Your task to perform on an android device: View the shopping cart on ebay. Add "bose soundsport free" to the cart on ebay, then select checkout. Image 0: 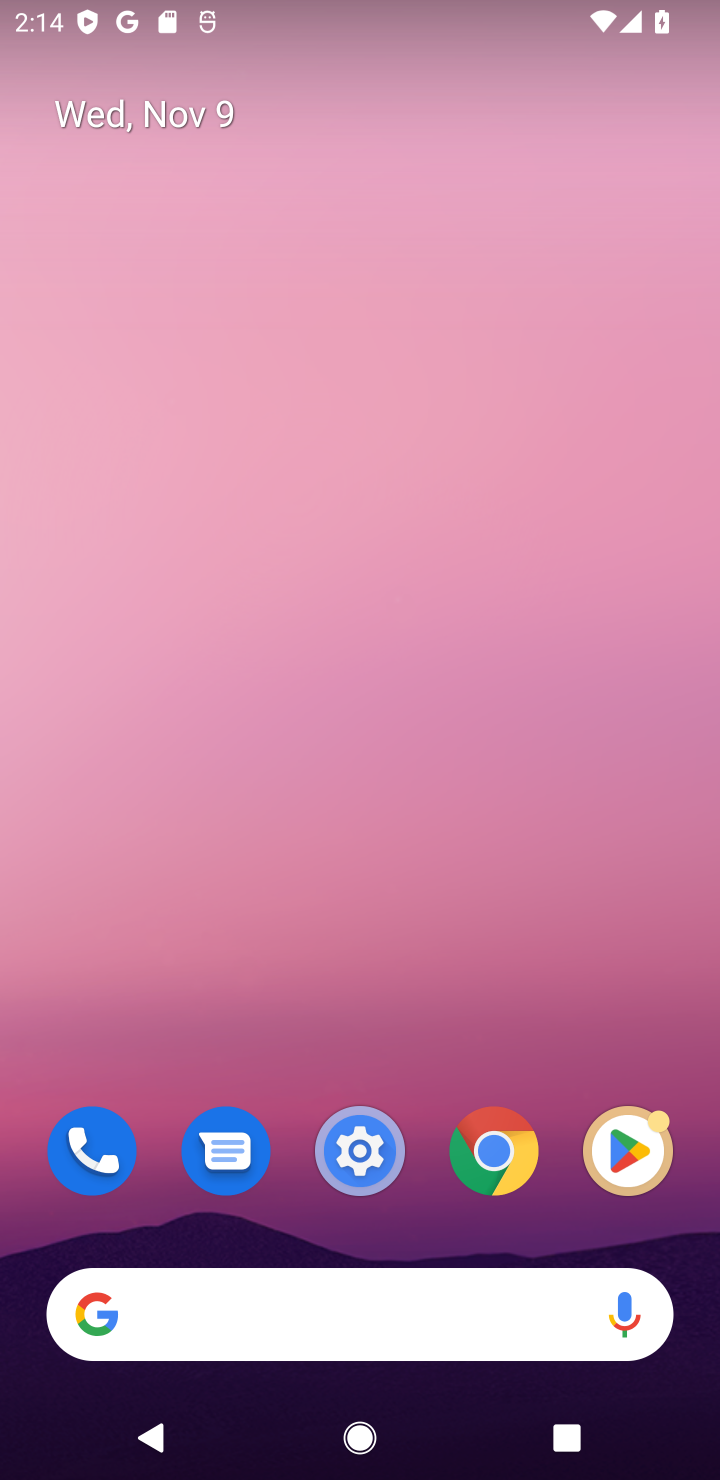
Step 0: click (435, 1296)
Your task to perform on an android device: View the shopping cart on ebay. Add "bose soundsport free" to the cart on ebay, then select checkout. Image 1: 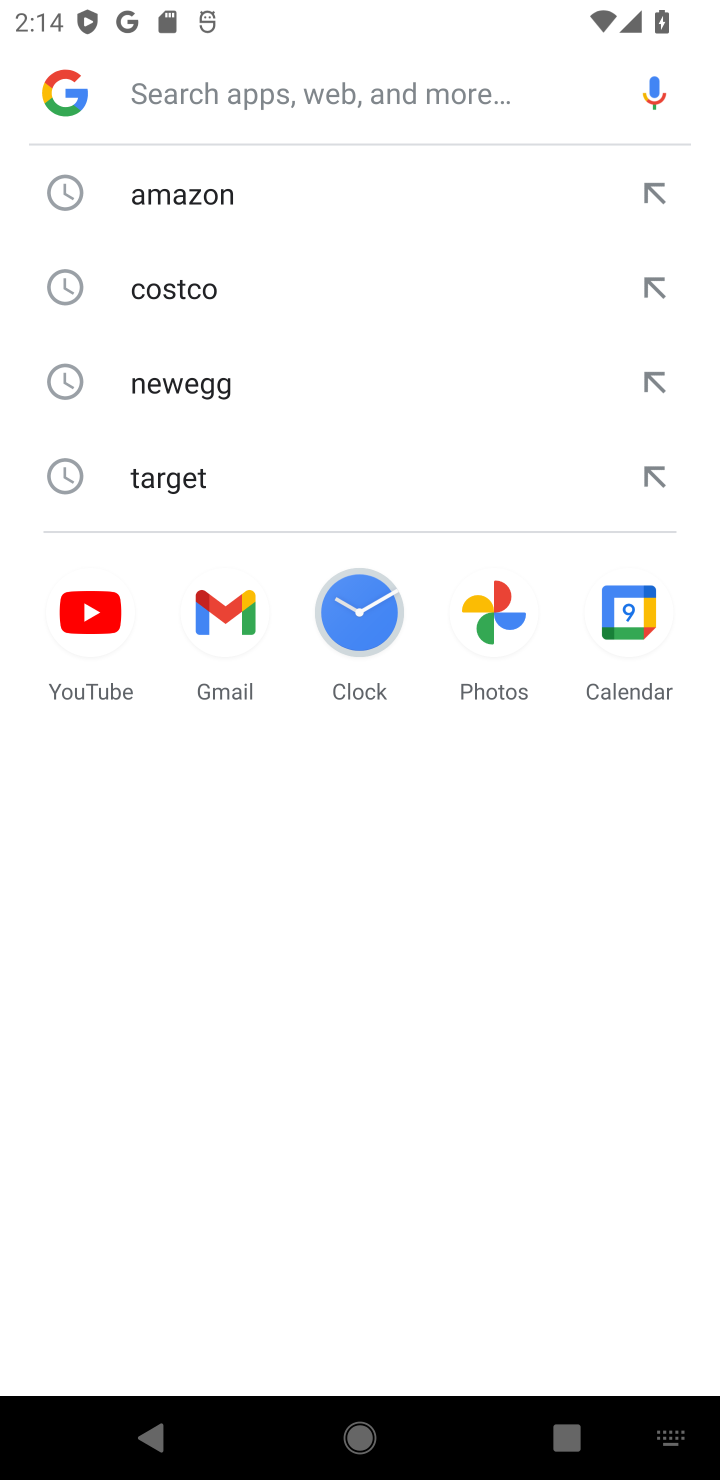
Step 1: type "ebay"
Your task to perform on an android device: View the shopping cart on ebay. Add "bose soundsport free" to the cart on ebay, then select checkout. Image 2: 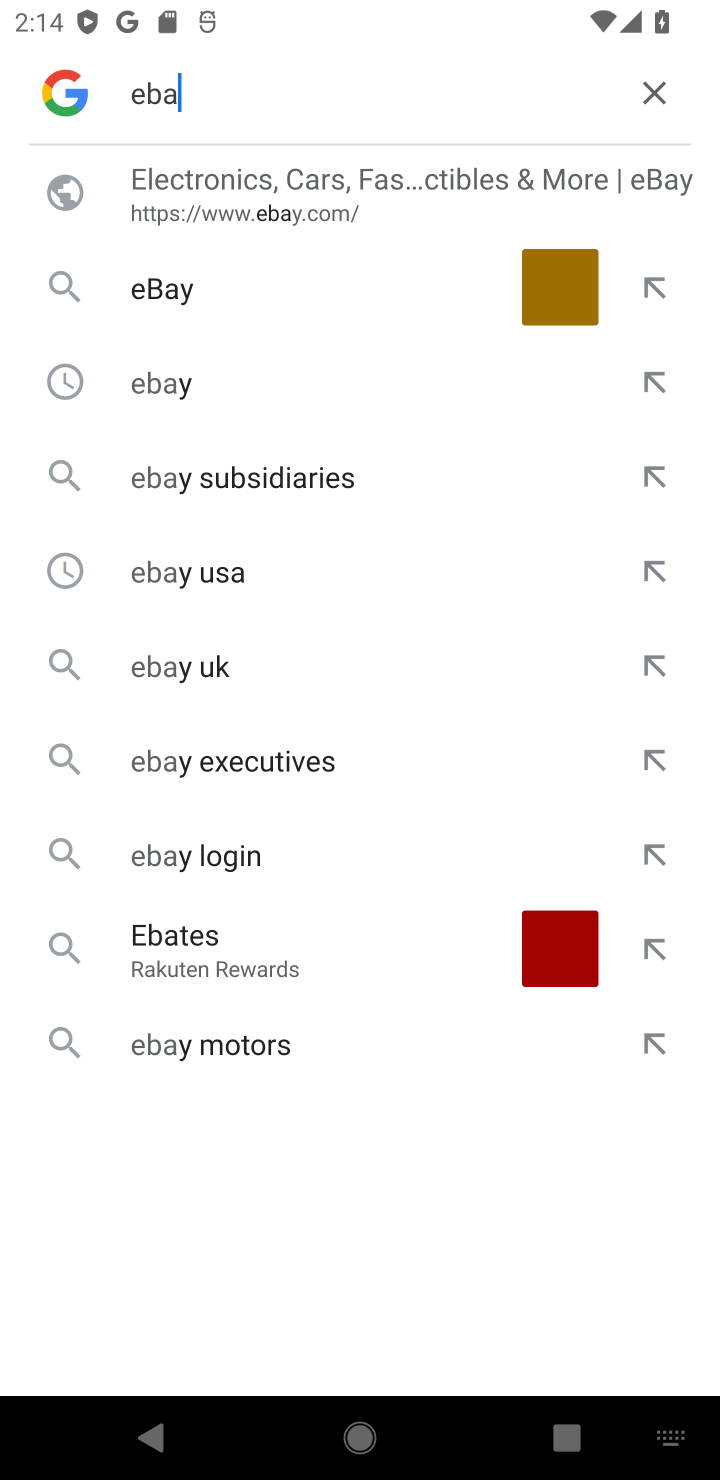
Step 2: type ""
Your task to perform on an android device: View the shopping cart on ebay. Add "bose soundsport free" to the cart on ebay, then select checkout. Image 3: 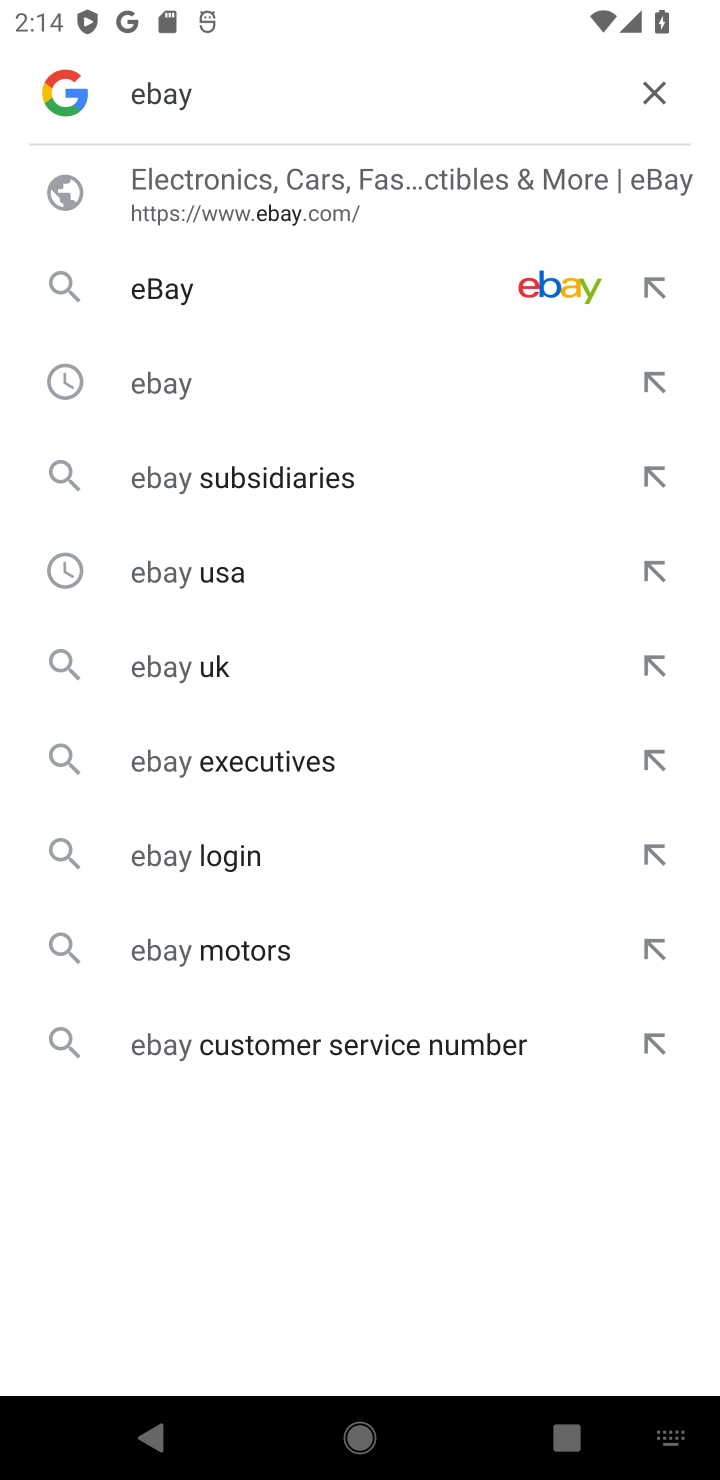
Step 3: press enter
Your task to perform on an android device: View the shopping cart on ebay. Add "bose soundsport free" to the cart on ebay, then select checkout. Image 4: 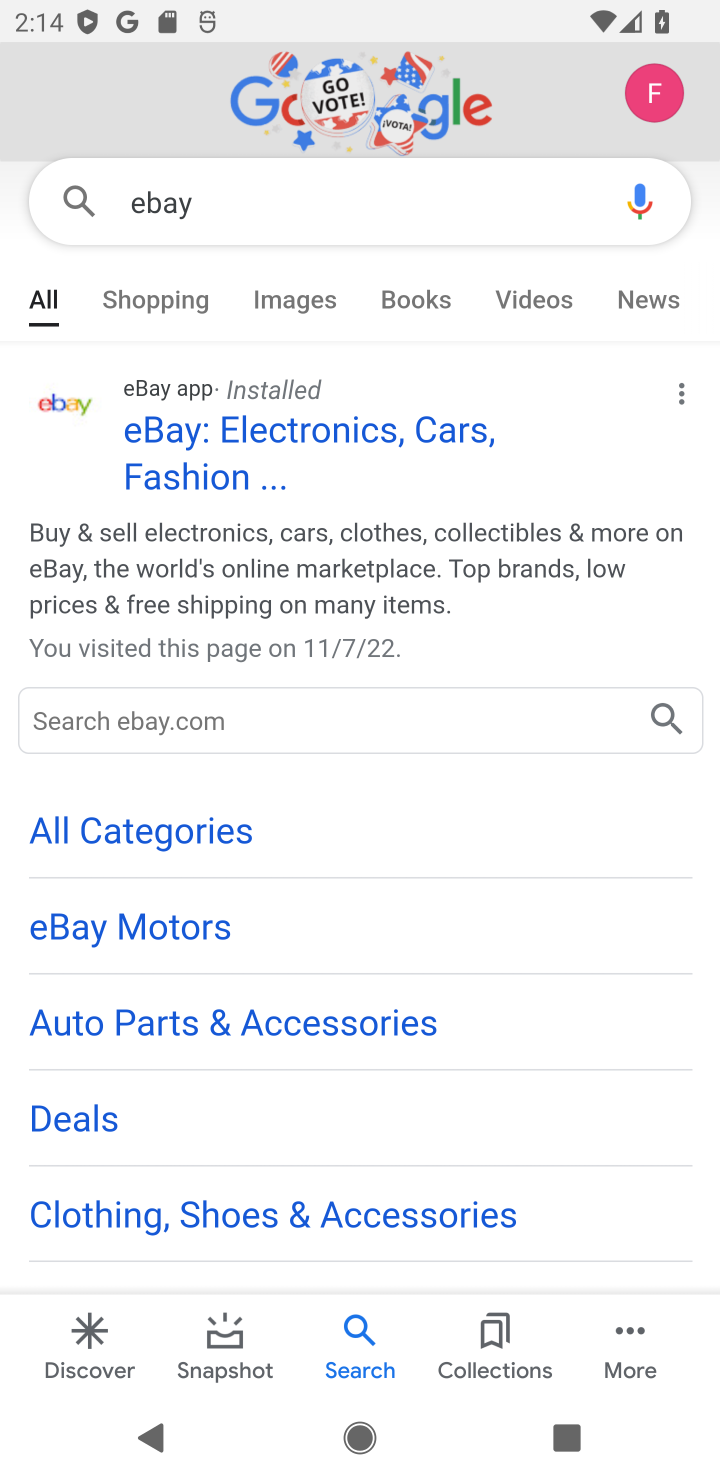
Step 4: drag from (357, 832) to (349, 1318)
Your task to perform on an android device: View the shopping cart on ebay. Add "bose soundsport free" to the cart on ebay, then select checkout. Image 5: 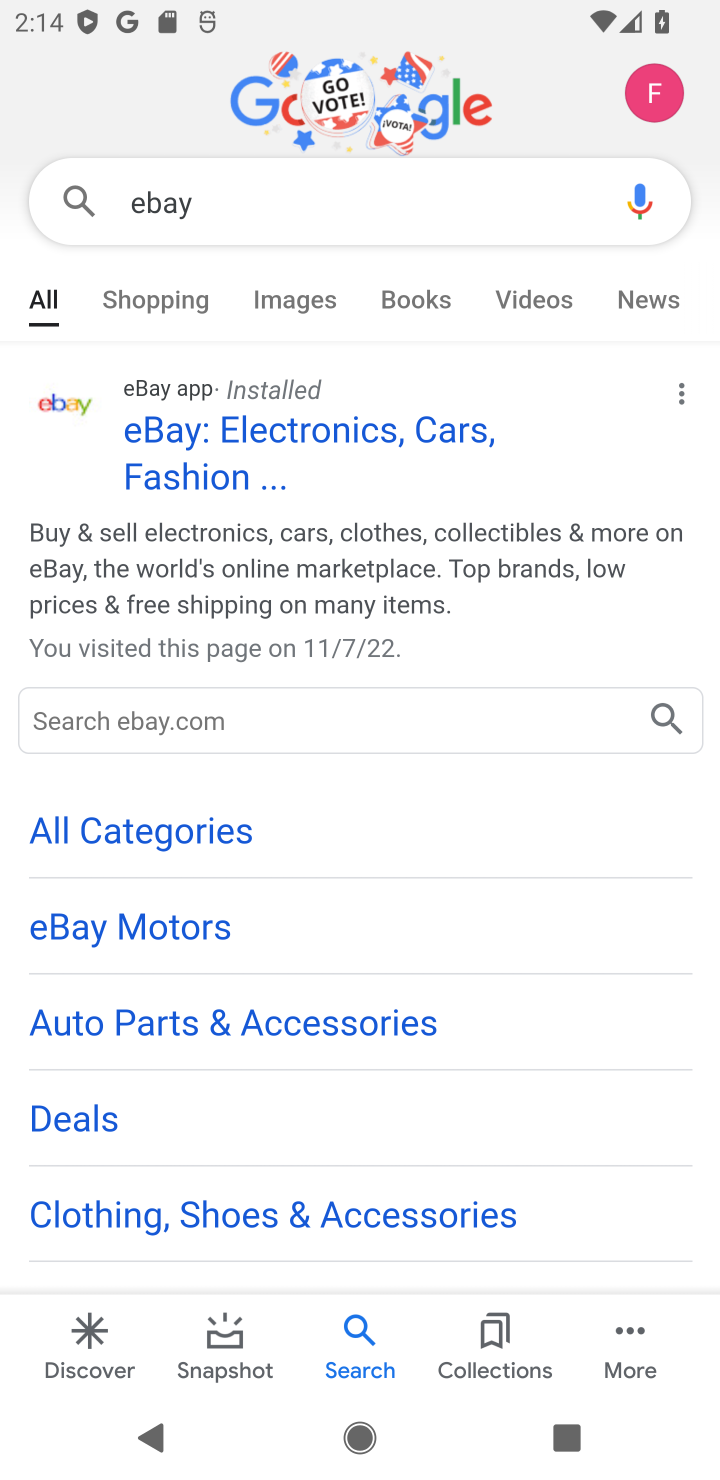
Step 5: click (188, 429)
Your task to perform on an android device: View the shopping cart on ebay. Add "bose soundsport free" to the cart on ebay, then select checkout. Image 6: 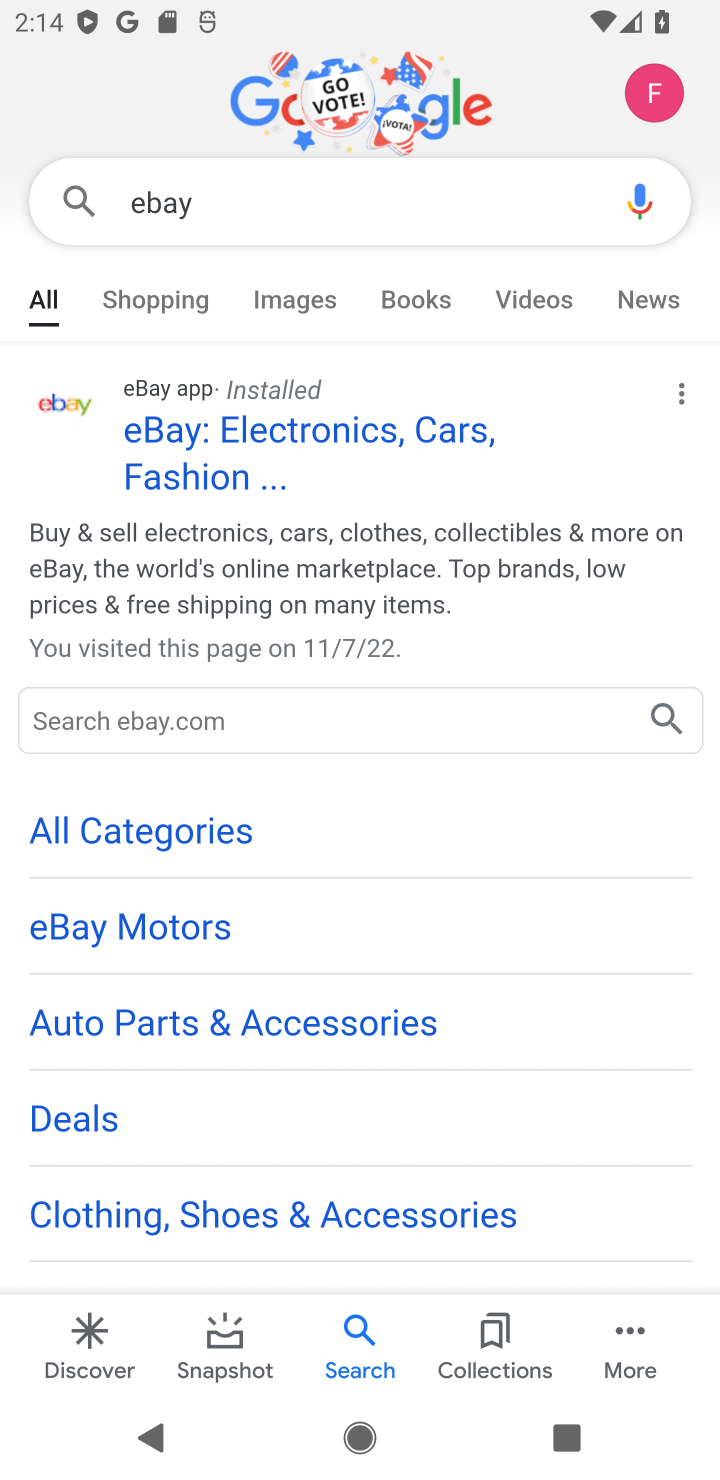
Step 6: drag from (396, 904) to (417, 250)
Your task to perform on an android device: View the shopping cart on ebay. Add "bose soundsport free" to the cart on ebay, then select checkout. Image 7: 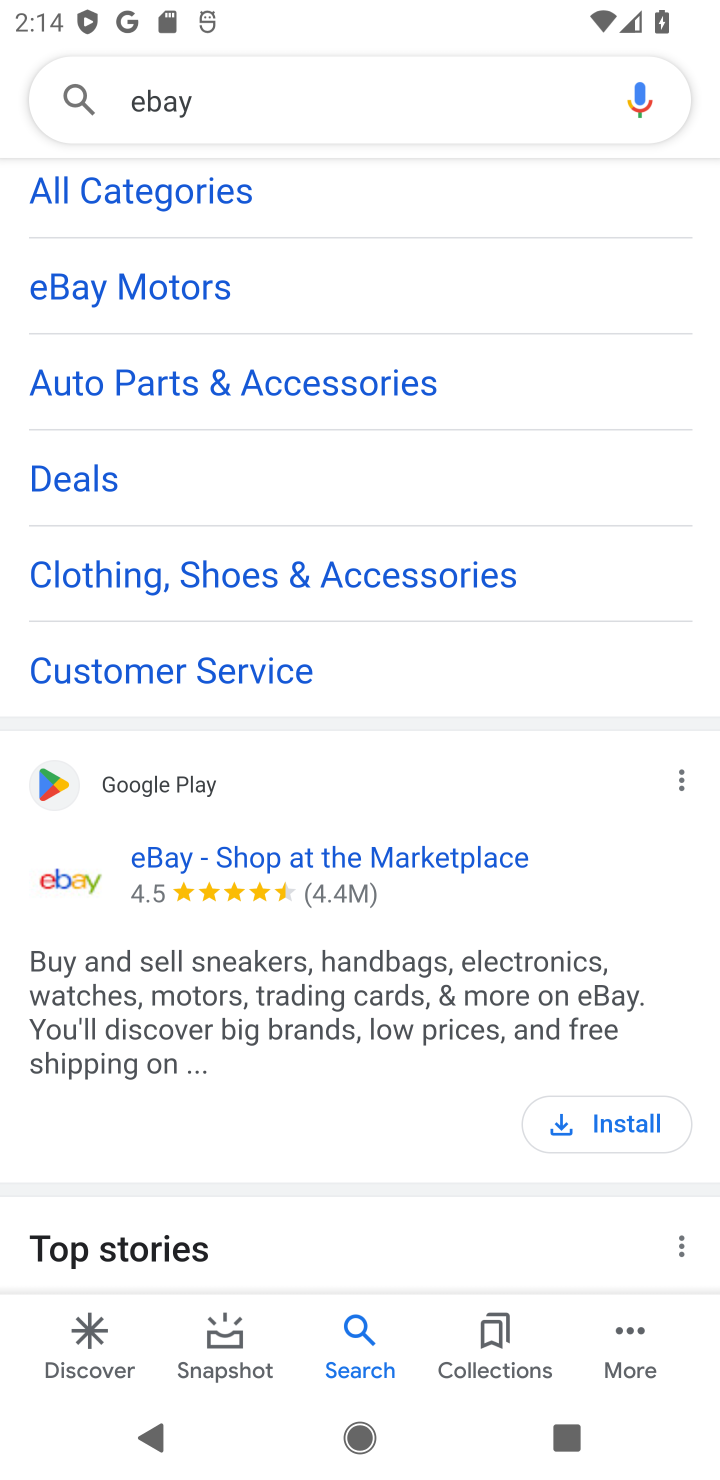
Step 7: drag from (448, 1218) to (439, 407)
Your task to perform on an android device: View the shopping cart on ebay. Add "bose soundsport free" to the cart on ebay, then select checkout. Image 8: 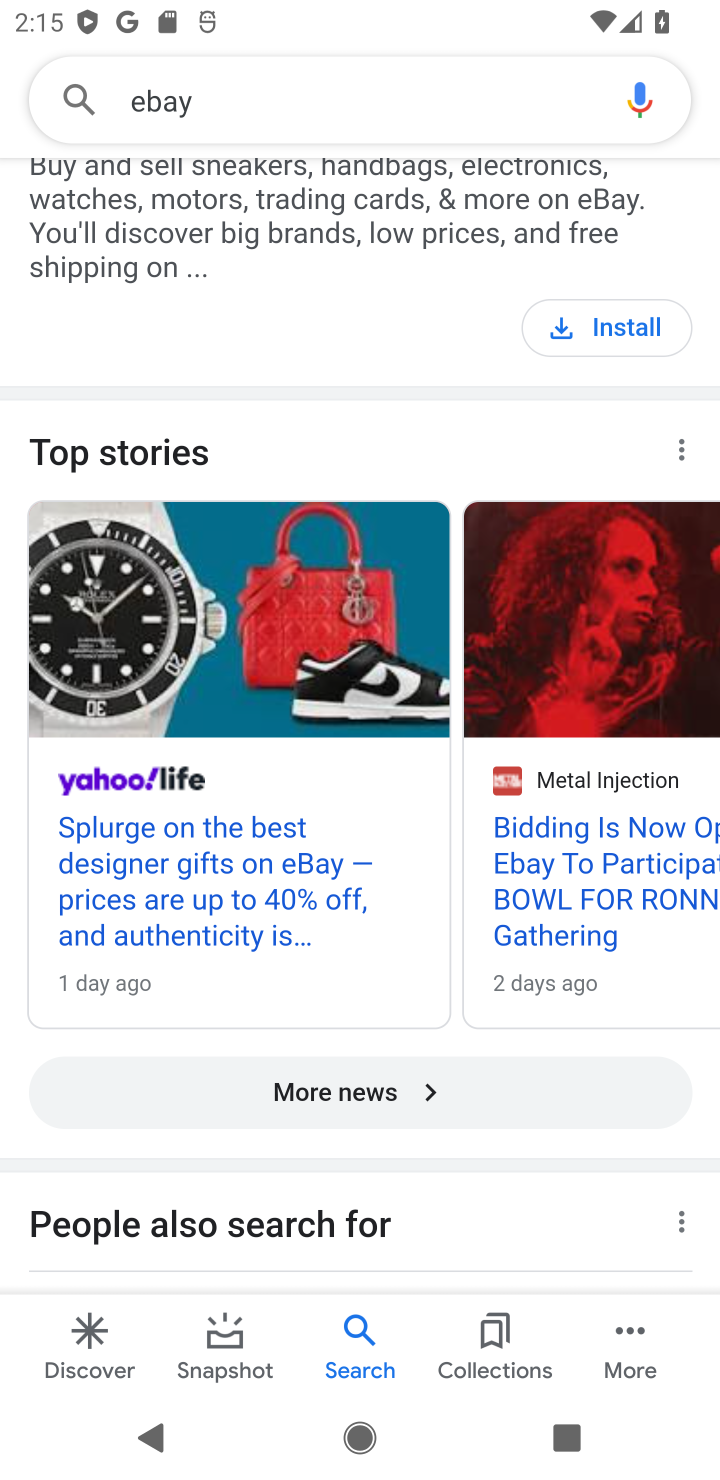
Step 8: drag from (465, 1225) to (387, 363)
Your task to perform on an android device: View the shopping cart on ebay. Add "bose soundsport free" to the cart on ebay, then select checkout. Image 9: 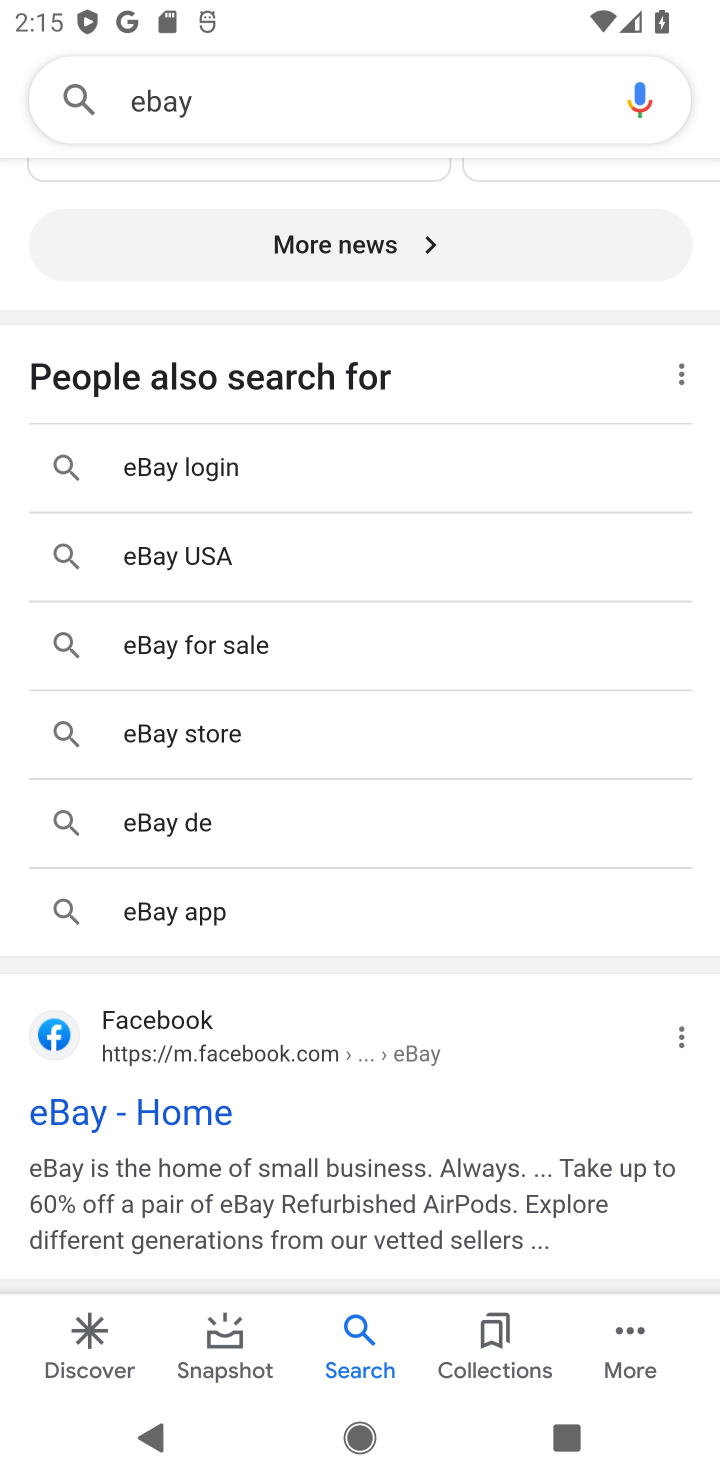
Step 9: drag from (348, 1129) to (435, 512)
Your task to perform on an android device: View the shopping cart on ebay. Add "bose soundsport free" to the cart on ebay, then select checkout. Image 10: 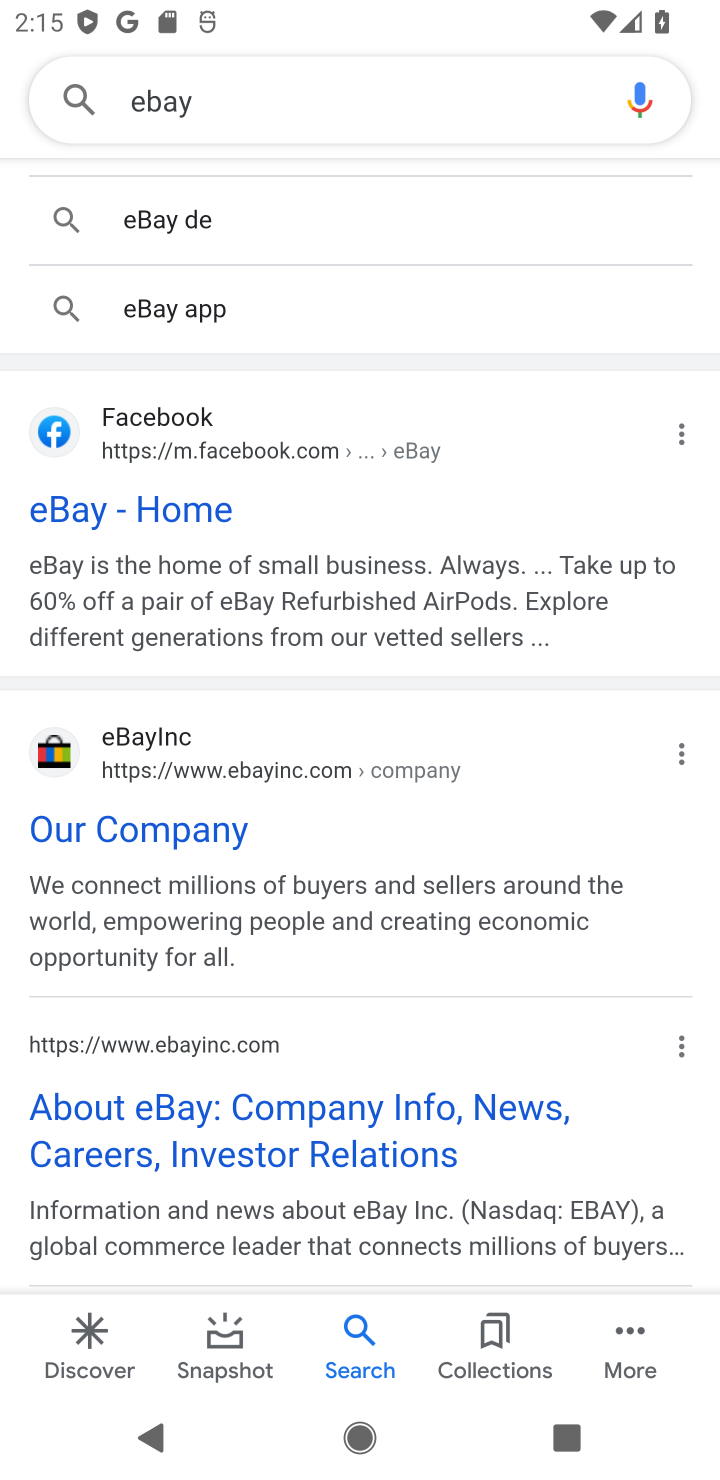
Step 10: drag from (465, 574) to (424, 1184)
Your task to perform on an android device: View the shopping cart on ebay. Add "bose soundsport free" to the cart on ebay, then select checkout. Image 11: 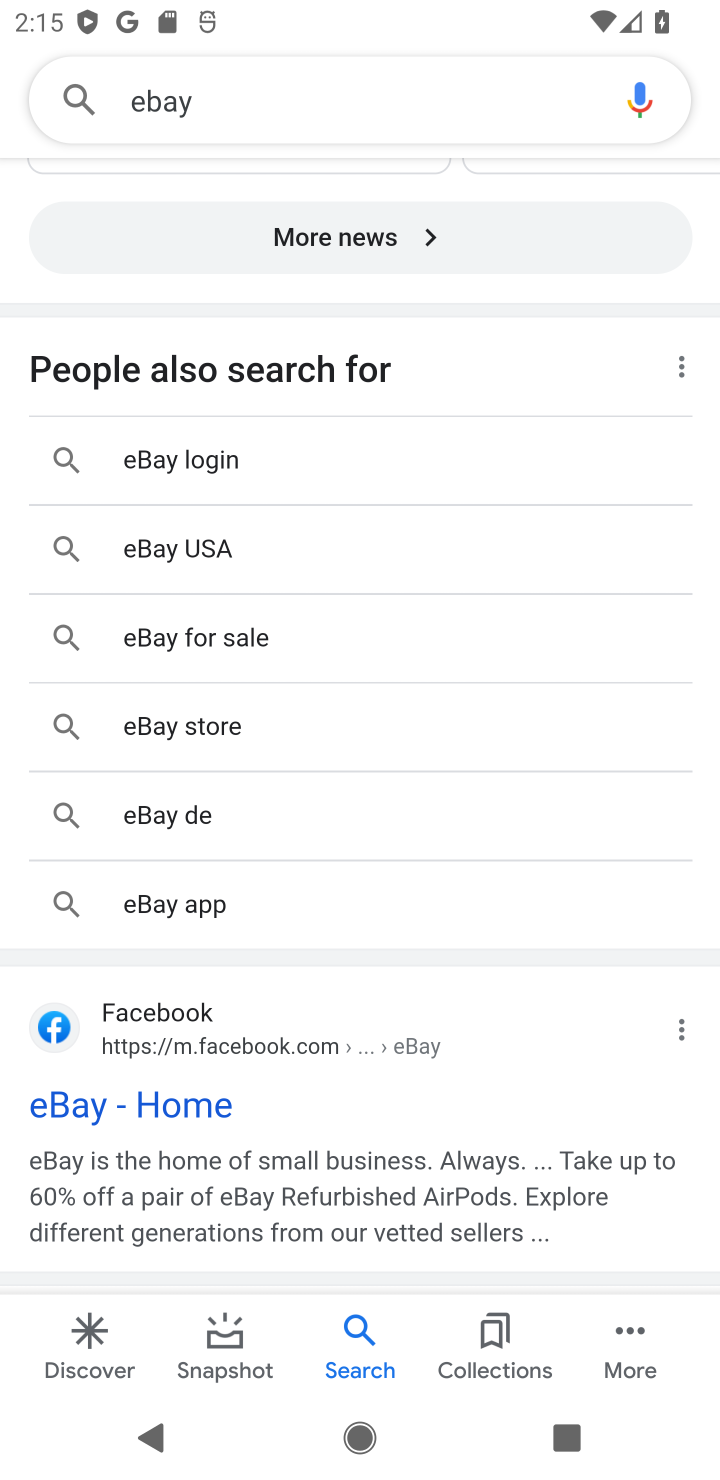
Step 11: drag from (393, 400) to (317, 1202)
Your task to perform on an android device: View the shopping cart on ebay. Add "bose soundsport free" to the cart on ebay, then select checkout. Image 12: 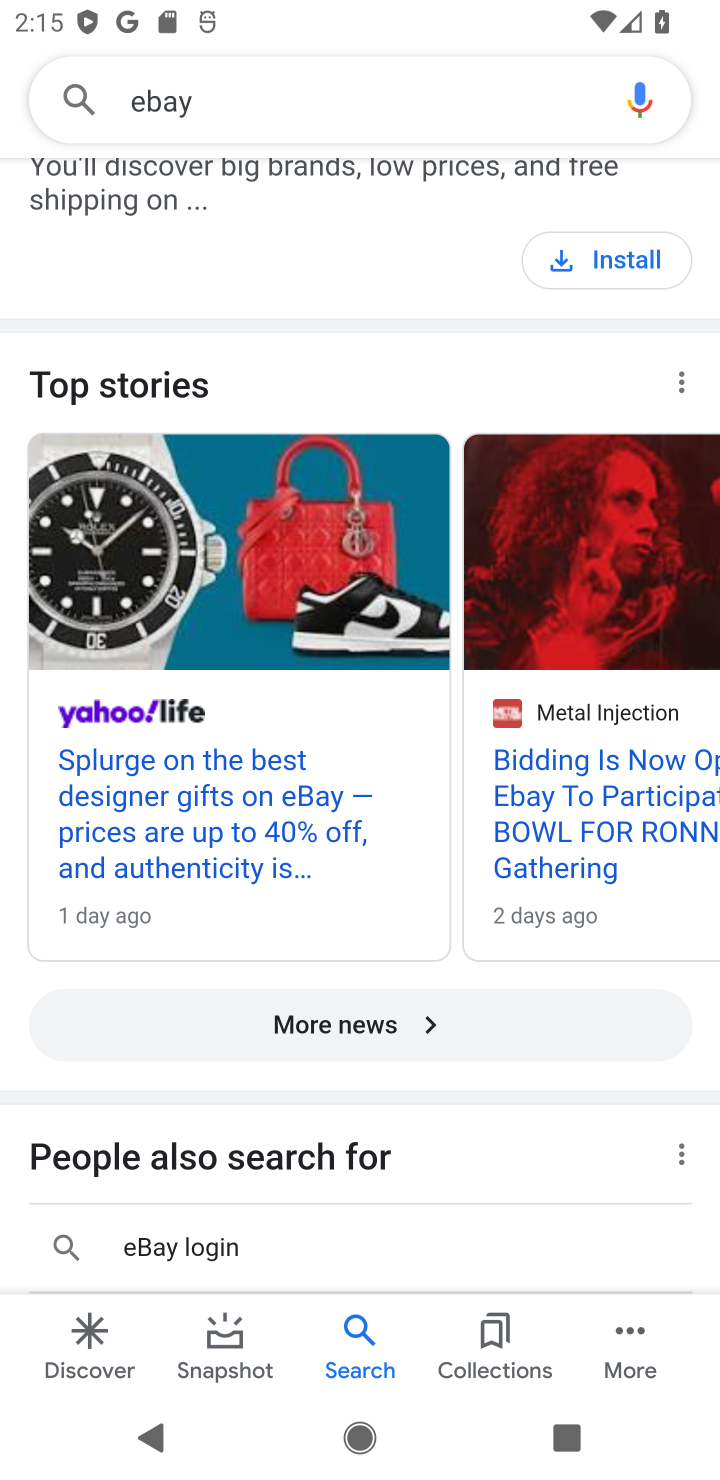
Step 12: drag from (403, 388) to (392, 1142)
Your task to perform on an android device: View the shopping cart on ebay. Add "bose soundsport free" to the cart on ebay, then select checkout. Image 13: 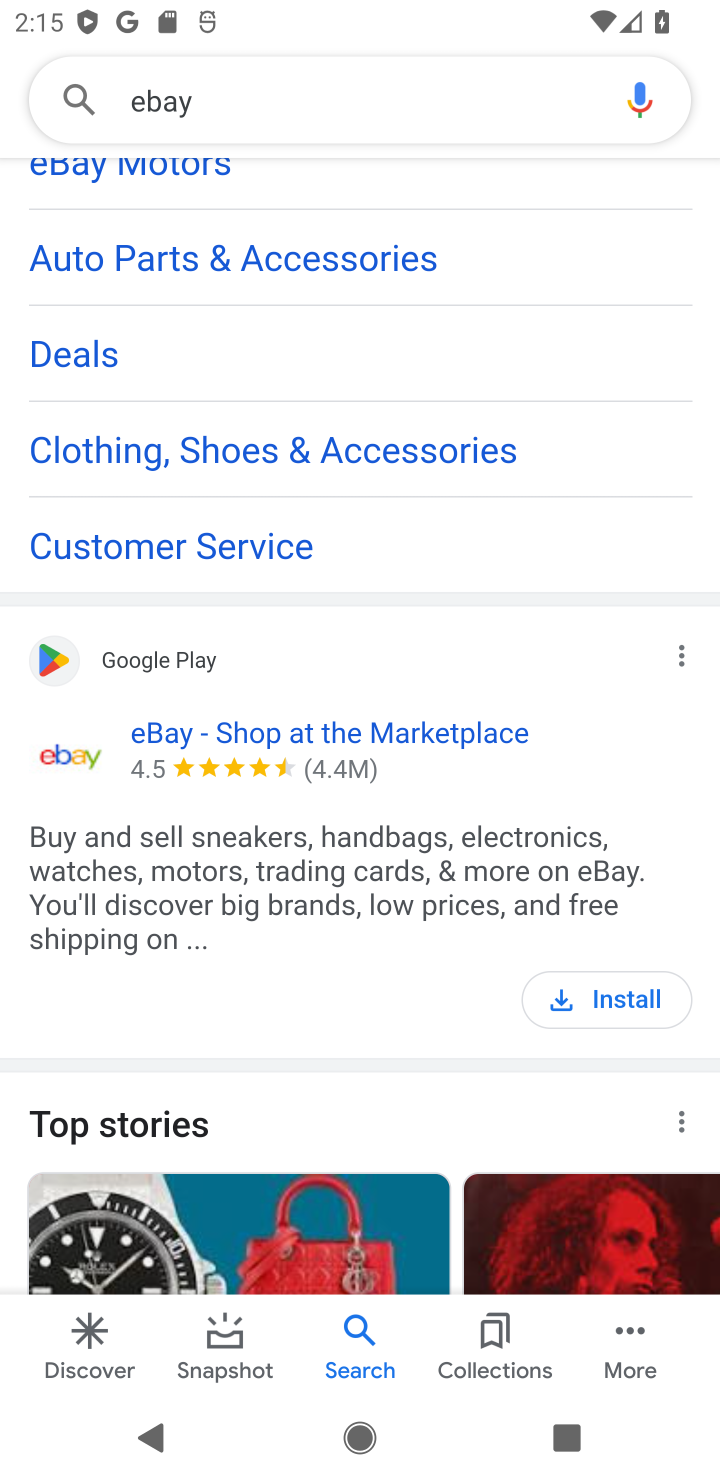
Step 13: drag from (471, 309) to (483, 591)
Your task to perform on an android device: View the shopping cart on ebay. Add "bose soundsport free" to the cart on ebay, then select checkout. Image 14: 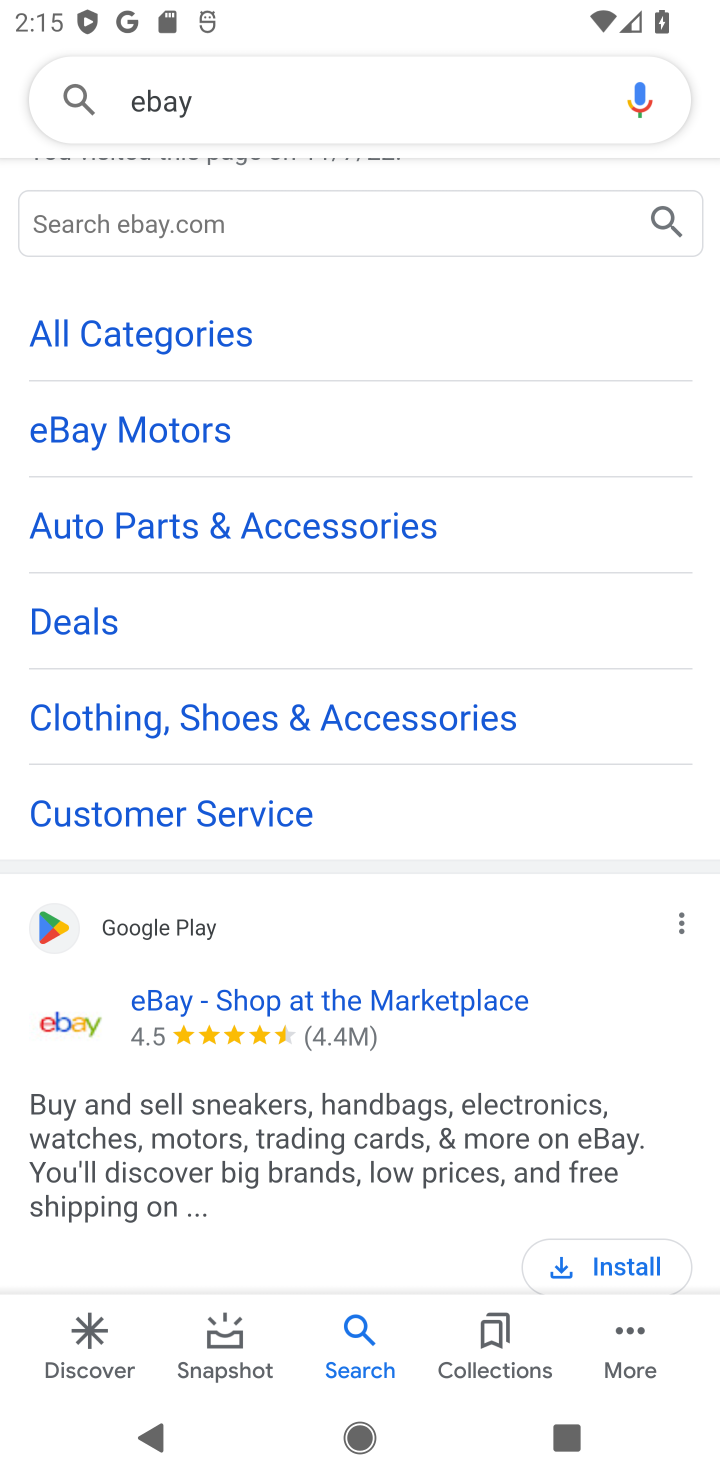
Step 14: click (258, 234)
Your task to perform on an android device: View the shopping cart on ebay. Add "bose soundsport free" to the cart on ebay, then select checkout. Image 15: 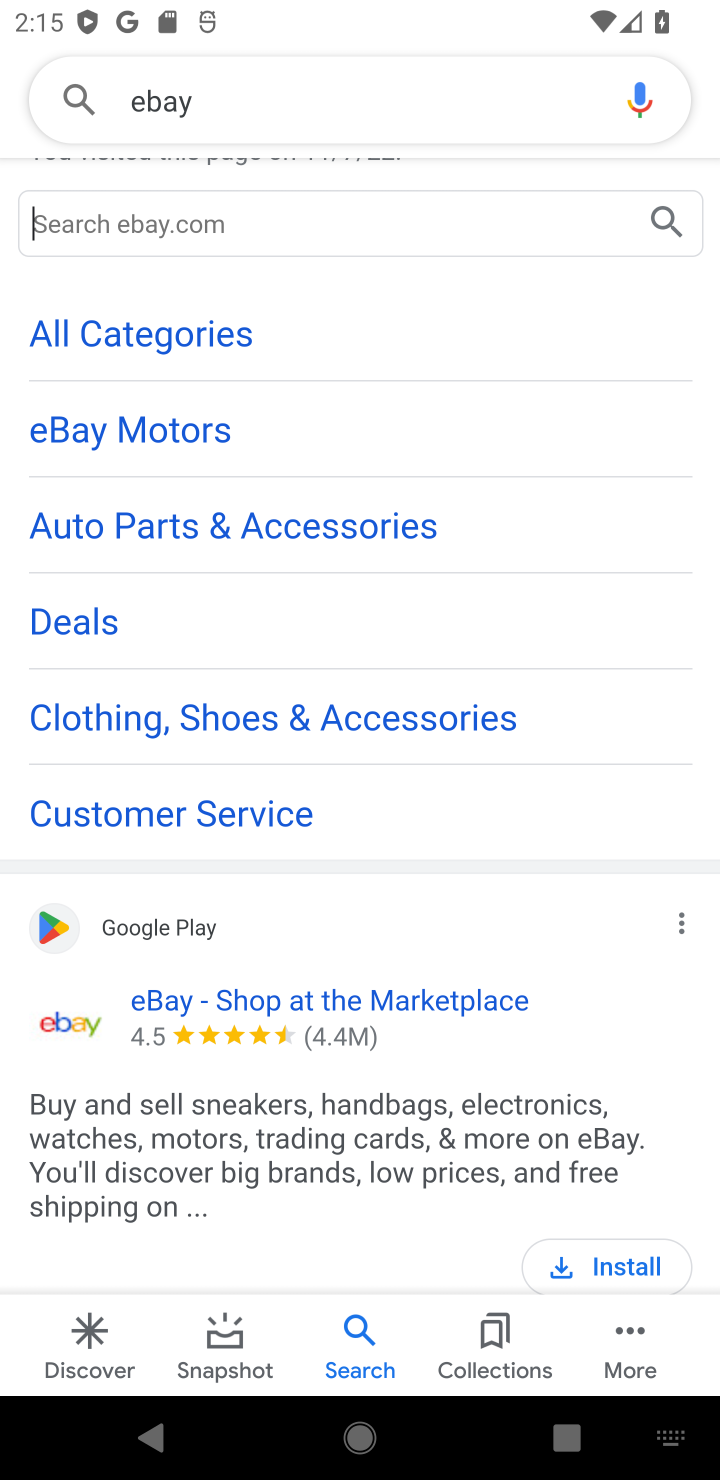
Step 15: click (663, 220)
Your task to perform on an android device: View the shopping cart on ebay. Add "bose soundsport free" to the cart on ebay, then select checkout. Image 16: 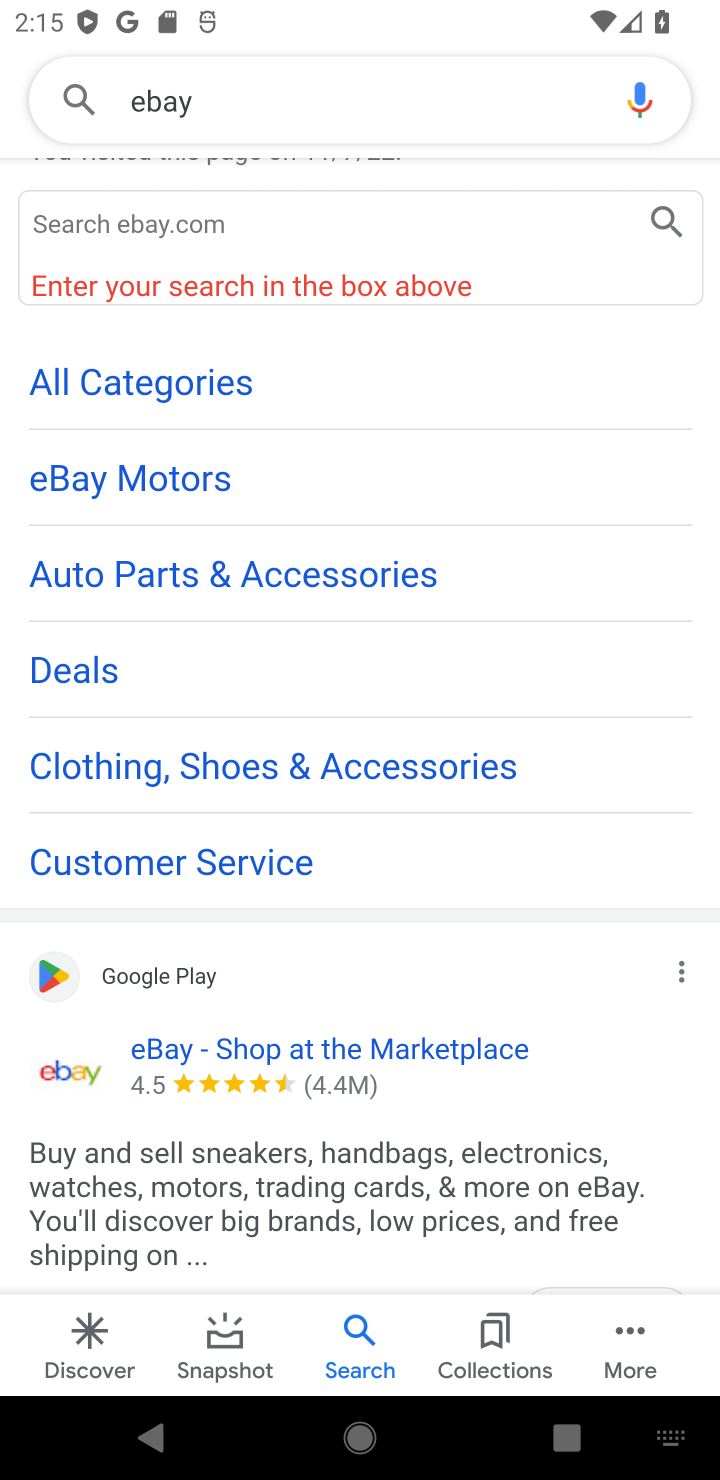
Step 16: type "bose soundsport free"
Your task to perform on an android device: View the shopping cart on ebay. Add "bose soundsport free" to the cart on ebay, then select checkout. Image 17: 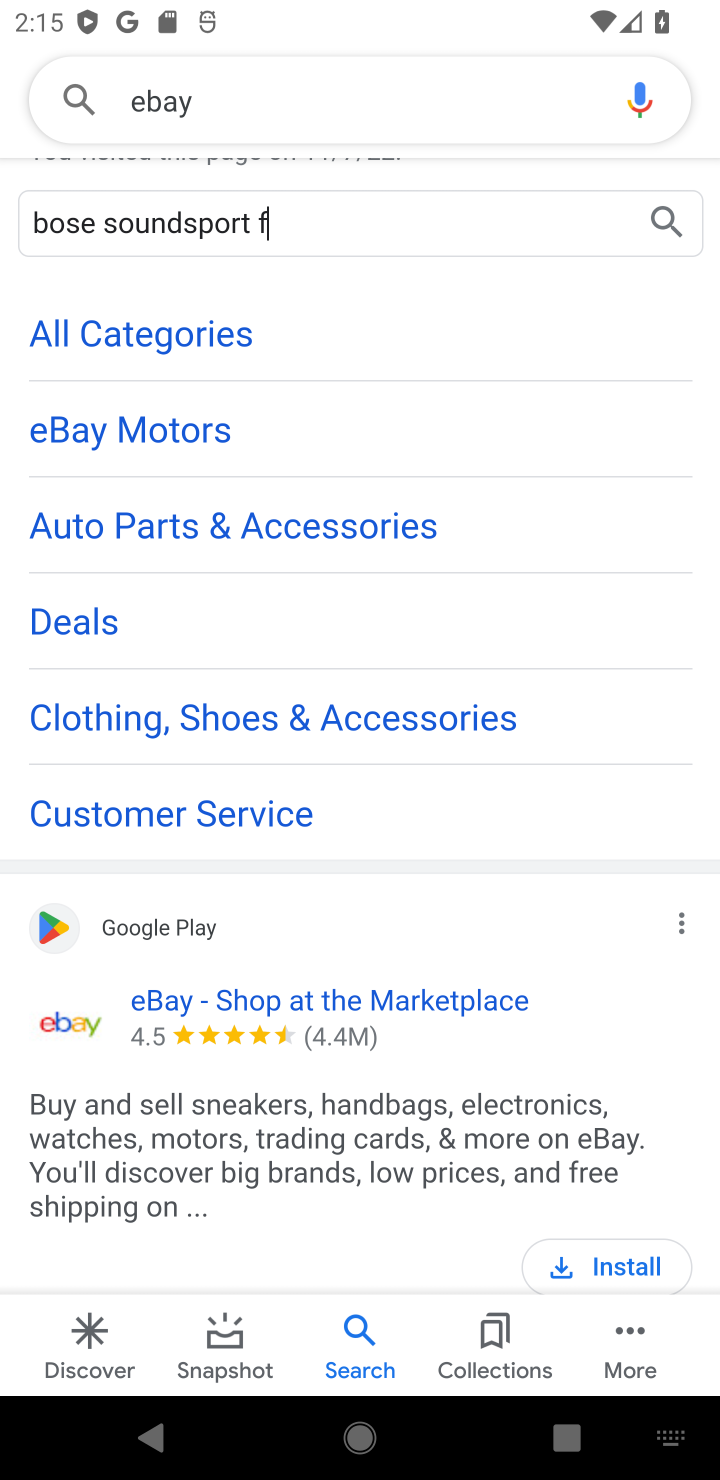
Step 17: type ""
Your task to perform on an android device: View the shopping cart on ebay. Add "bose soundsport free" to the cart on ebay, then select checkout. Image 18: 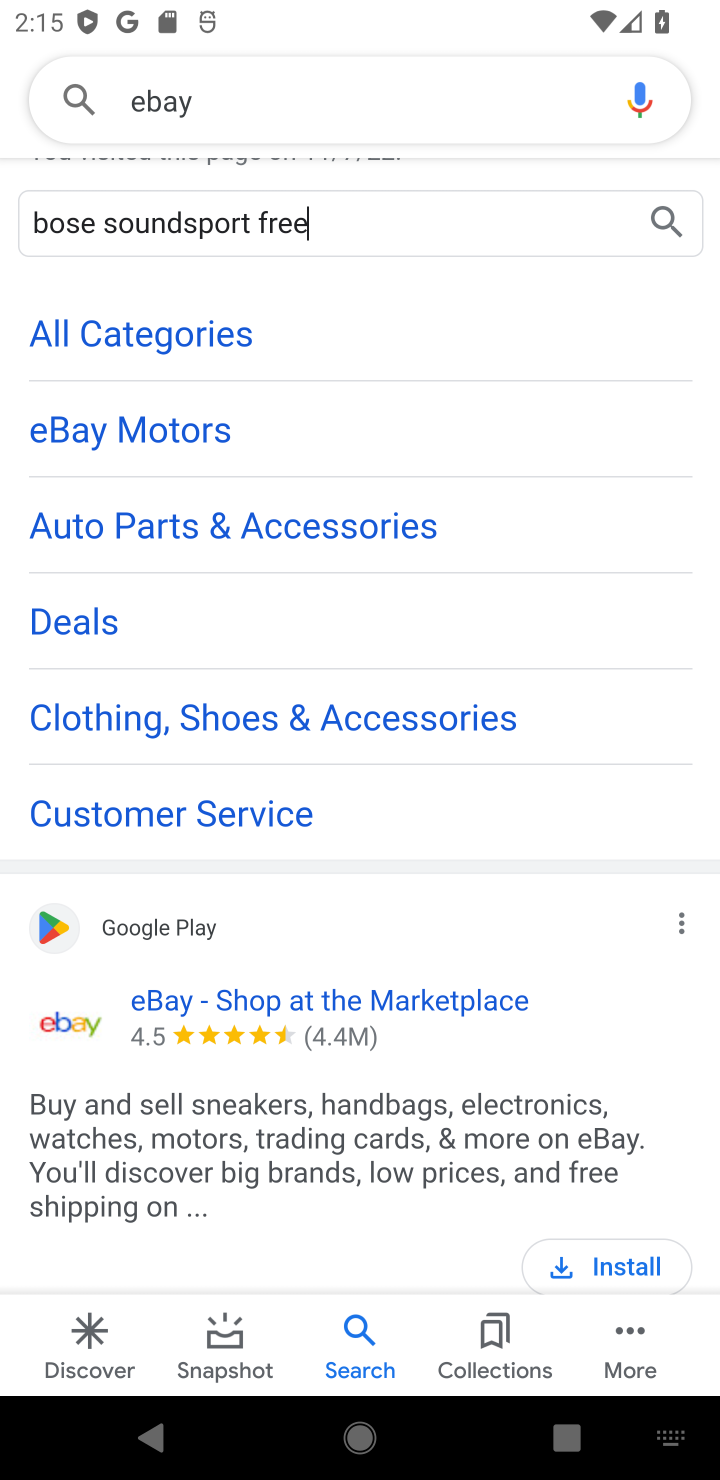
Step 18: click (667, 215)
Your task to perform on an android device: View the shopping cart on ebay. Add "bose soundsport free" to the cart on ebay, then select checkout. Image 19: 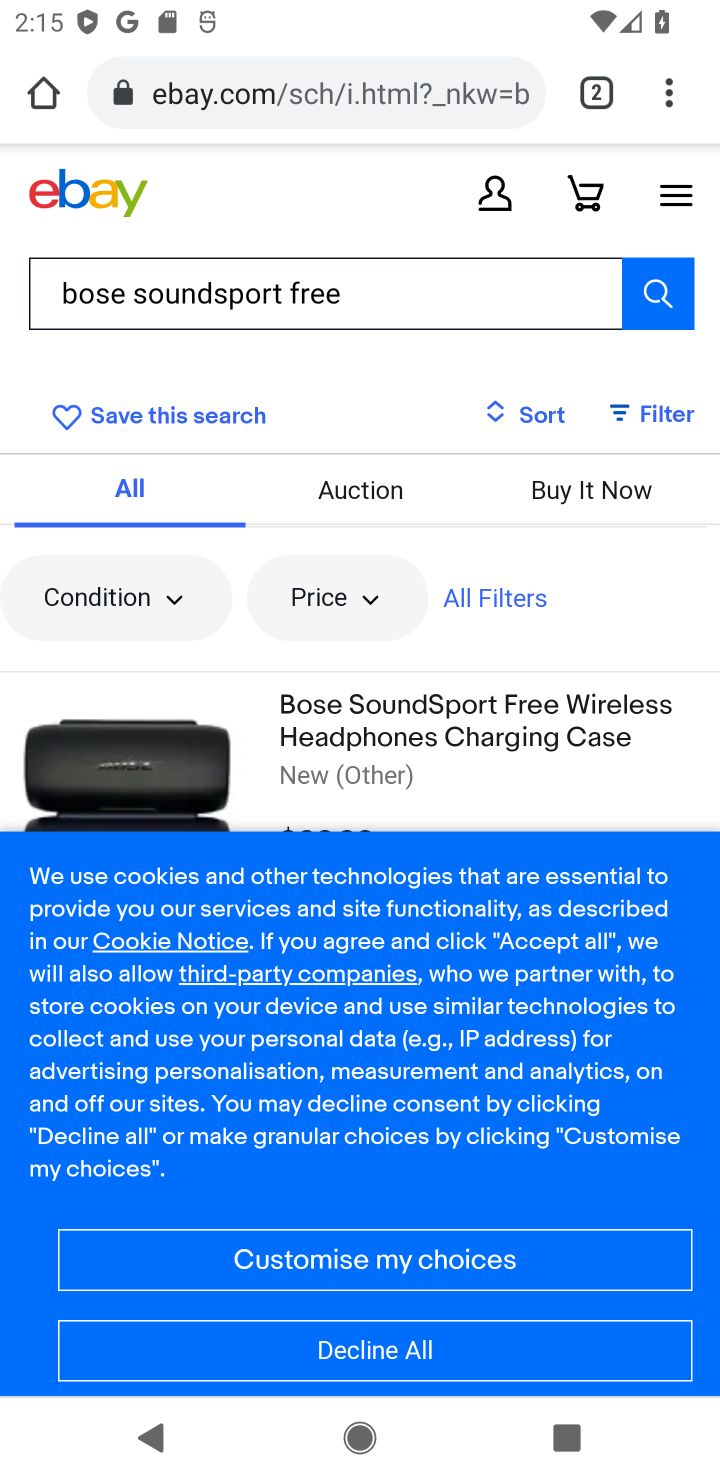
Step 19: click (439, 715)
Your task to perform on an android device: View the shopping cart on ebay. Add "bose soundsport free" to the cart on ebay, then select checkout. Image 20: 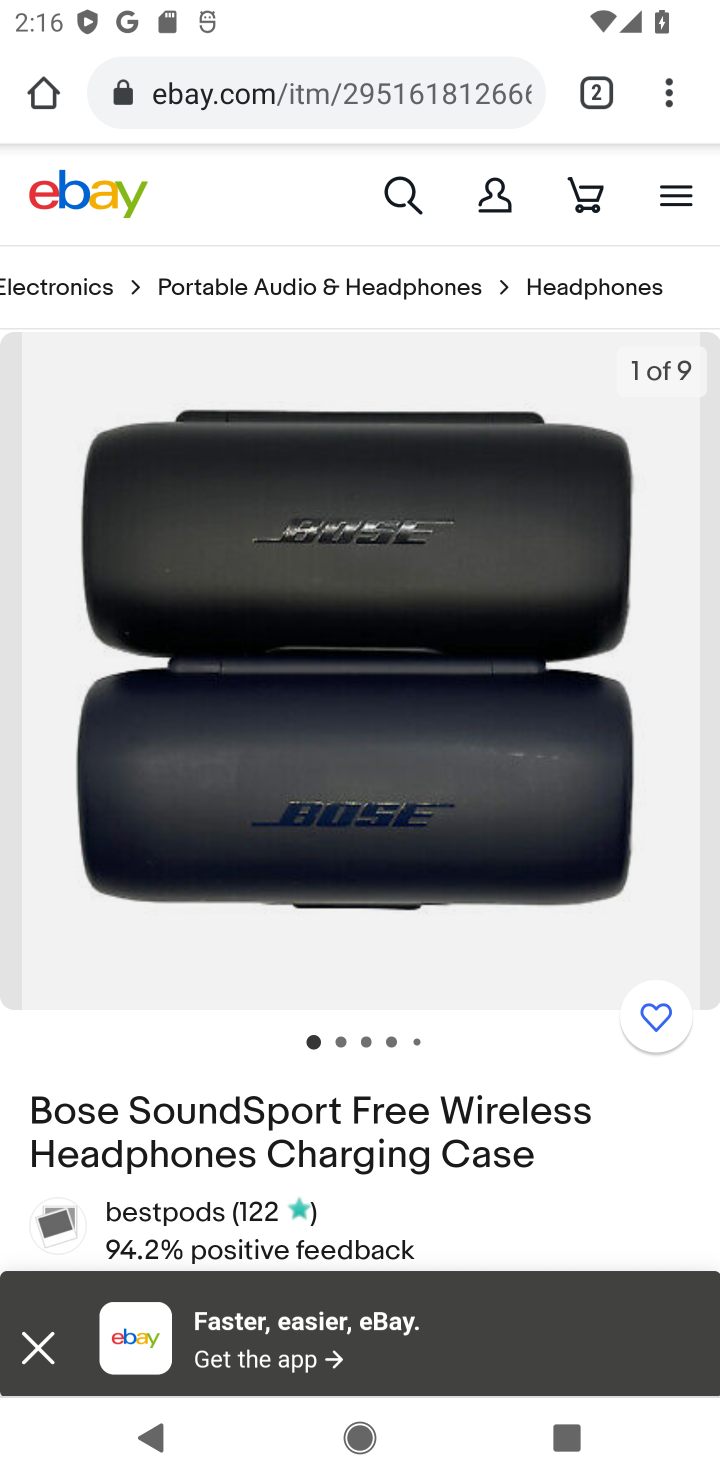
Step 20: drag from (423, 1199) to (453, 387)
Your task to perform on an android device: View the shopping cart on ebay. Add "bose soundsport free" to the cart on ebay, then select checkout. Image 21: 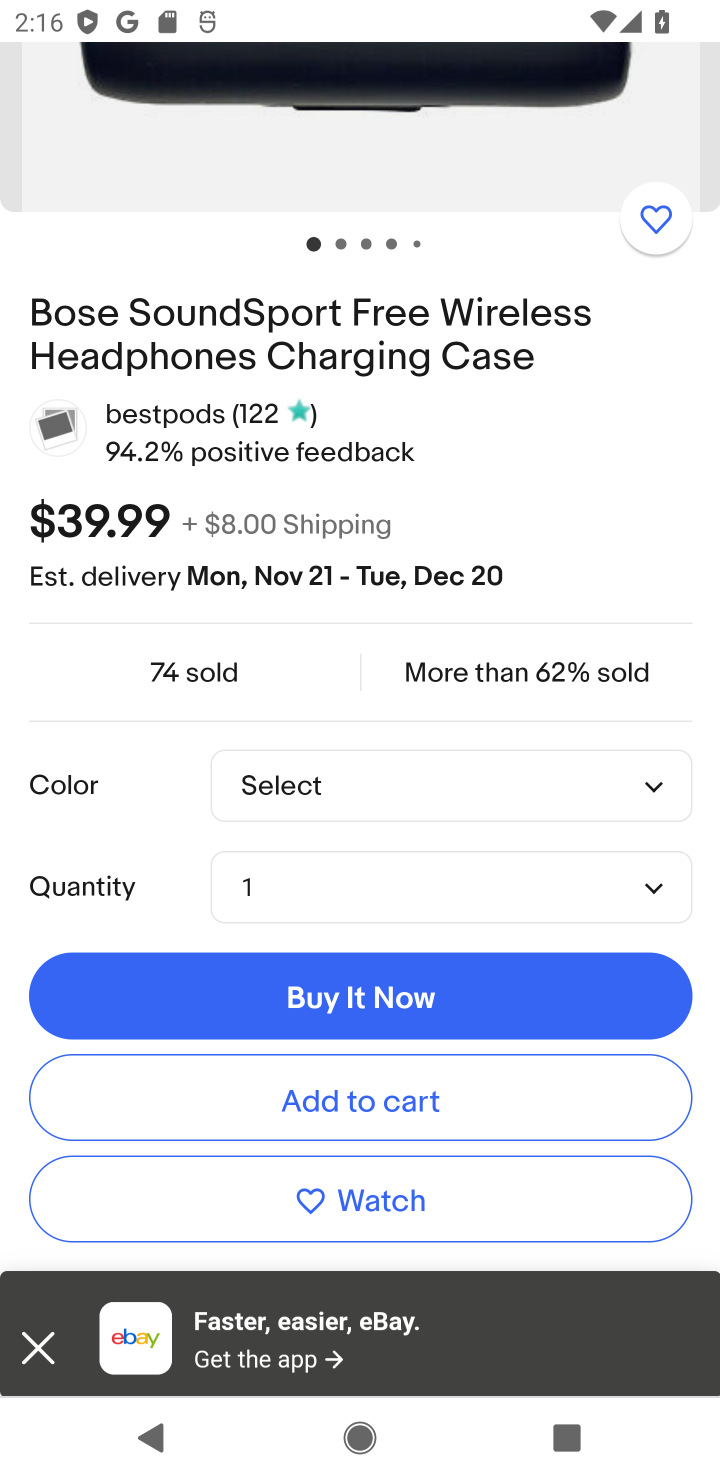
Step 21: click (258, 1087)
Your task to perform on an android device: View the shopping cart on ebay. Add "bose soundsport free" to the cart on ebay, then select checkout. Image 22: 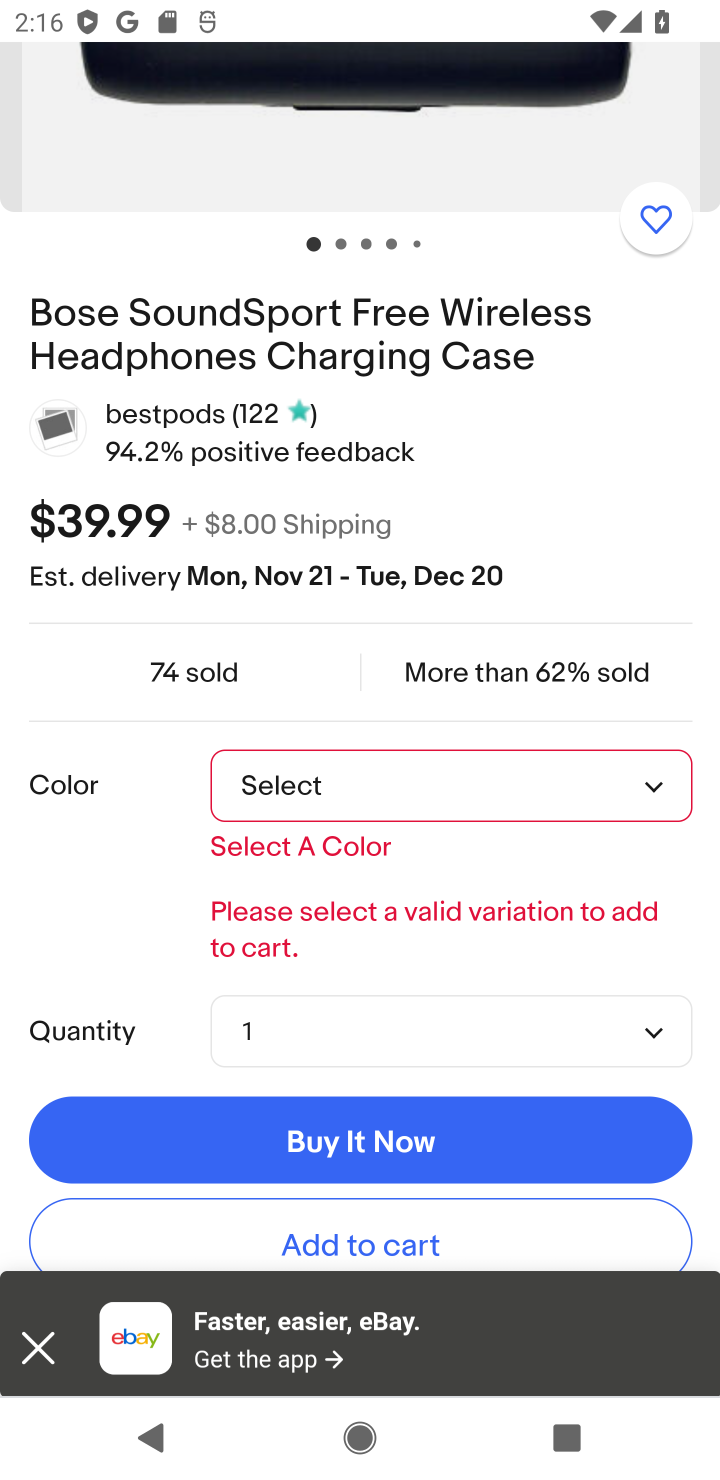
Step 22: click (334, 1235)
Your task to perform on an android device: View the shopping cart on ebay. Add "bose soundsport free" to the cart on ebay, then select checkout. Image 23: 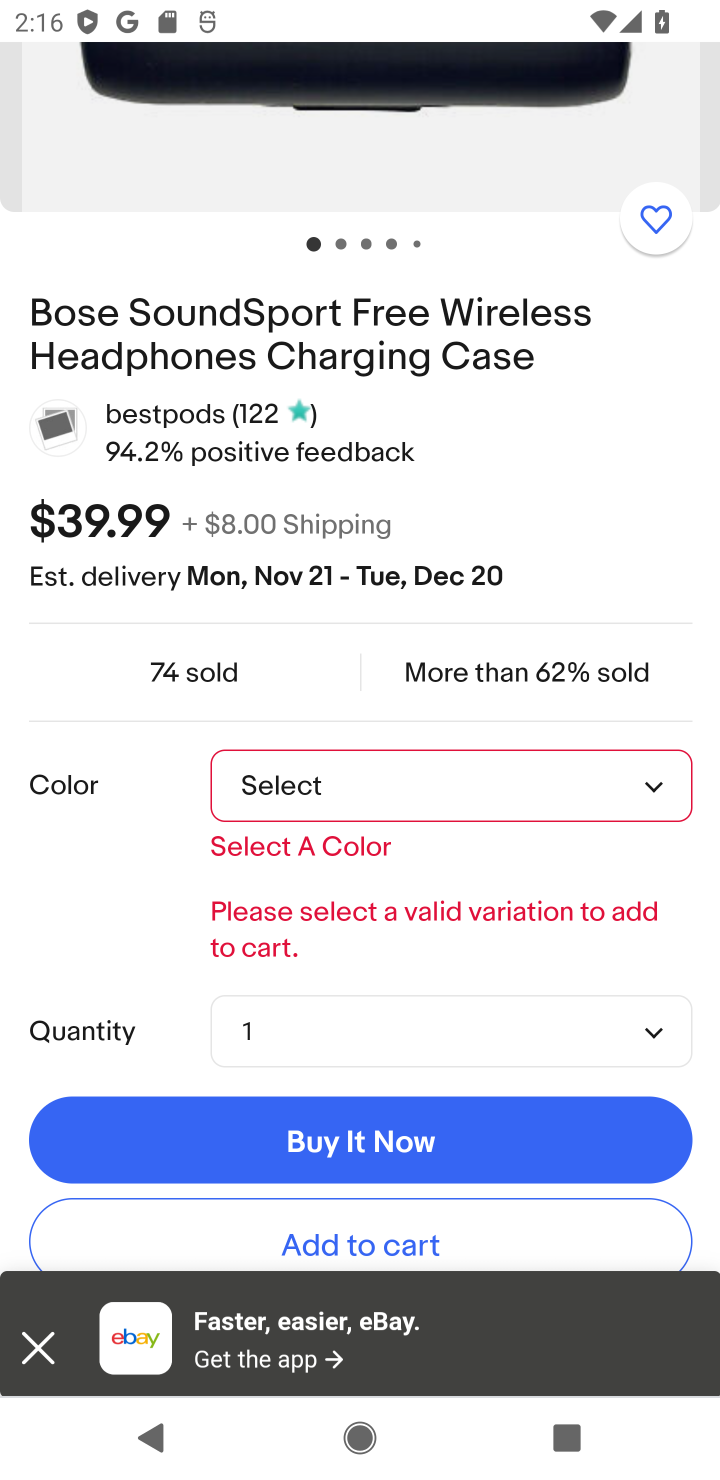
Step 23: click (658, 783)
Your task to perform on an android device: View the shopping cart on ebay. Add "bose soundsport free" to the cart on ebay, then select checkout. Image 24: 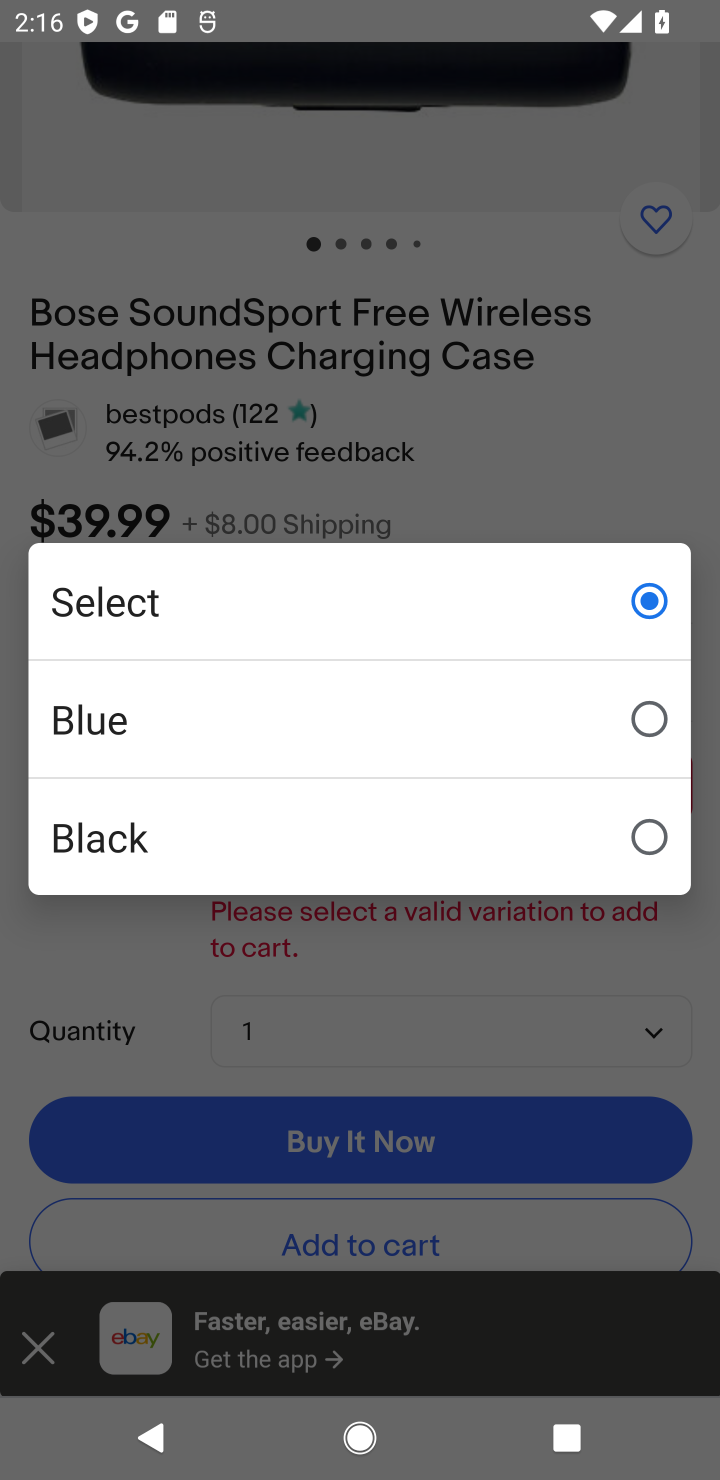
Step 24: click (466, 758)
Your task to perform on an android device: View the shopping cart on ebay. Add "bose soundsport free" to the cart on ebay, then select checkout. Image 25: 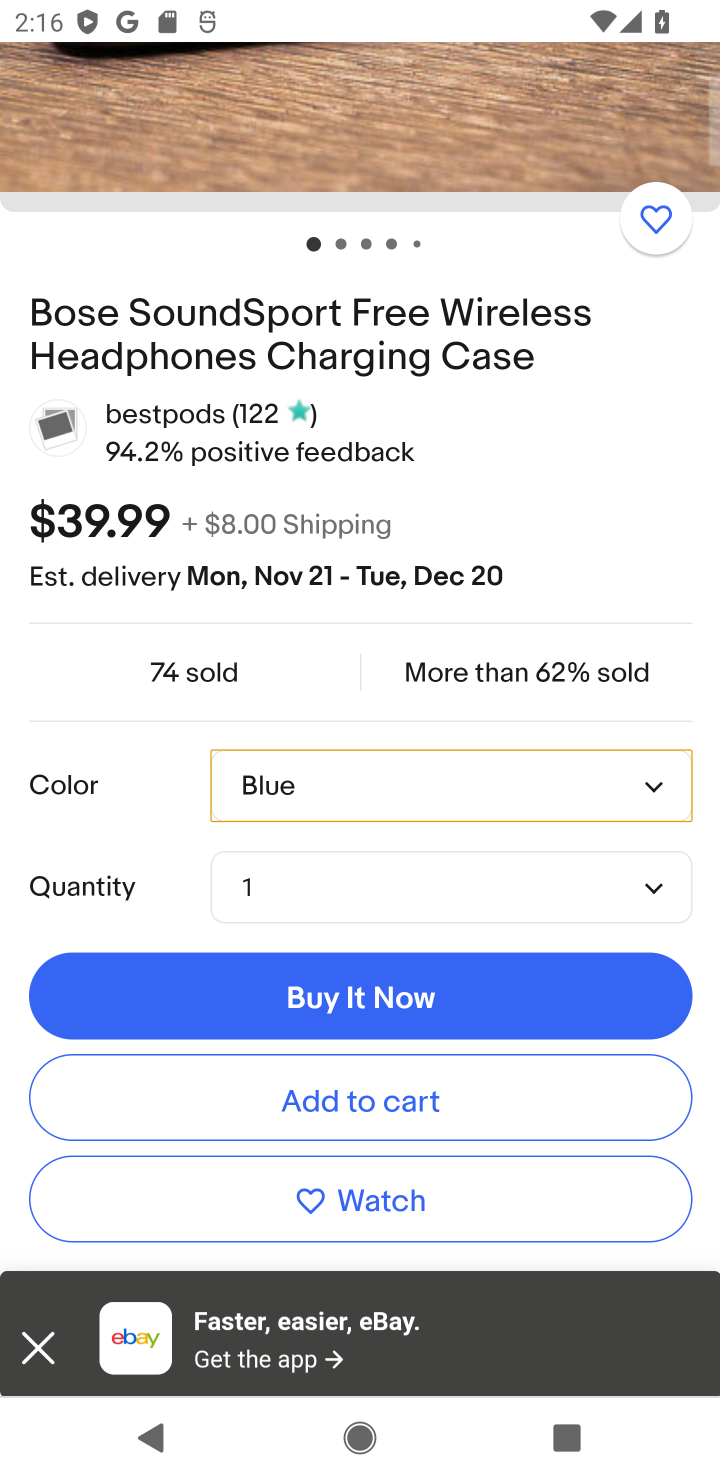
Step 25: click (406, 1095)
Your task to perform on an android device: View the shopping cart on ebay. Add "bose soundsport free" to the cart on ebay, then select checkout. Image 26: 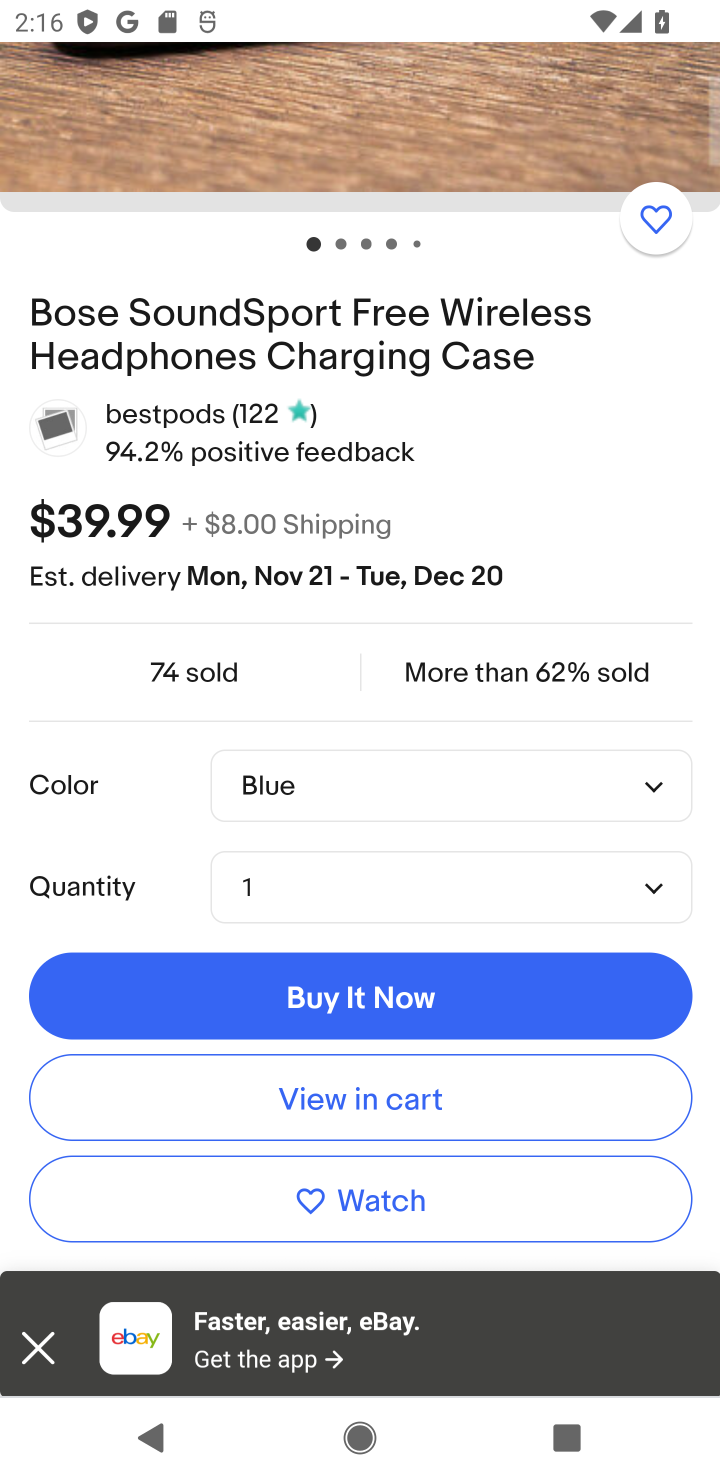
Step 26: click (406, 1095)
Your task to perform on an android device: View the shopping cart on ebay. Add "bose soundsport free" to the cart on ebay, then select checkout. Image 27: 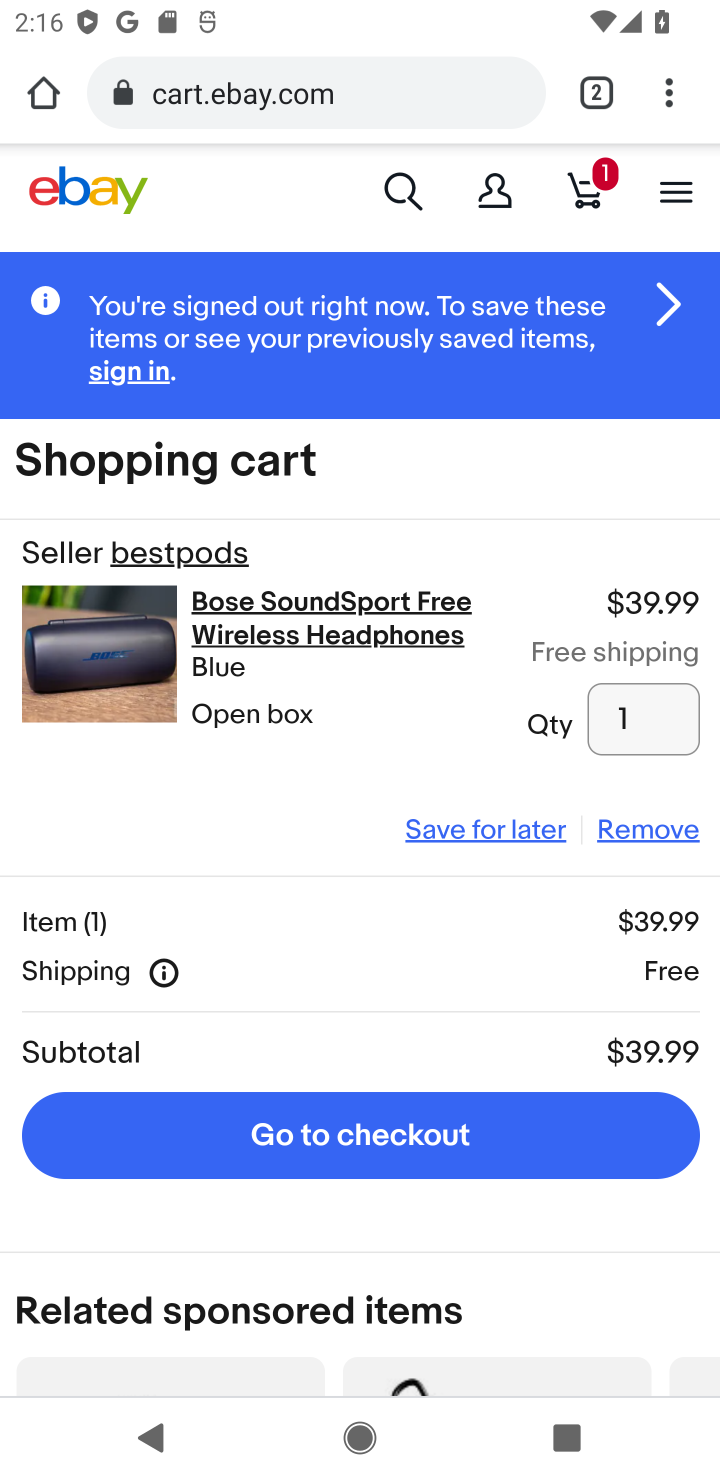
Step 27: click (373, 1140)
Your task to perform on an android device: View the shopping cart on ebay. Add "bose soundsport free" to the cart on ebay, then select checkout. Image 28: 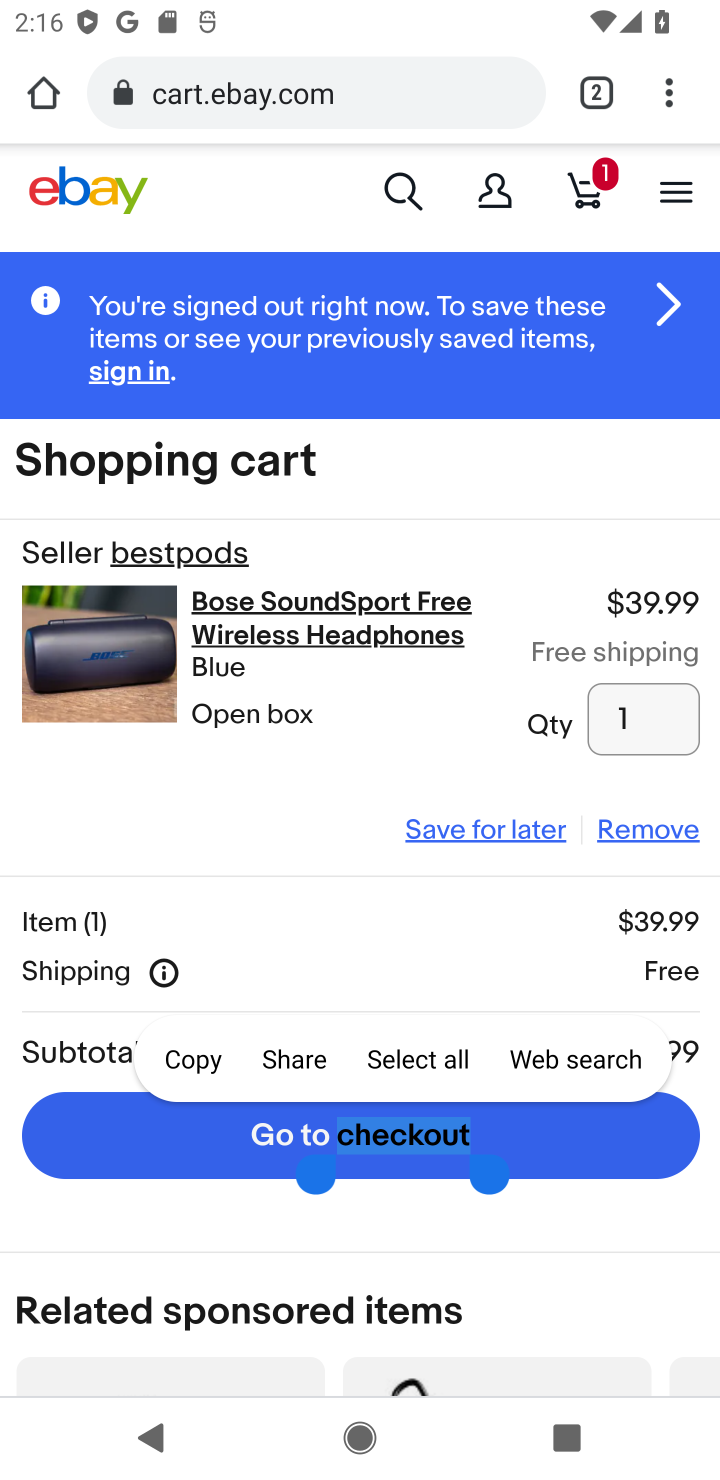
Step 28: click (308, 1131)
Your task to perform on an android device: View the shopping cart on ebay. Add "bose soundsport free" to the cart on ebay, then select checkout. Image 29: 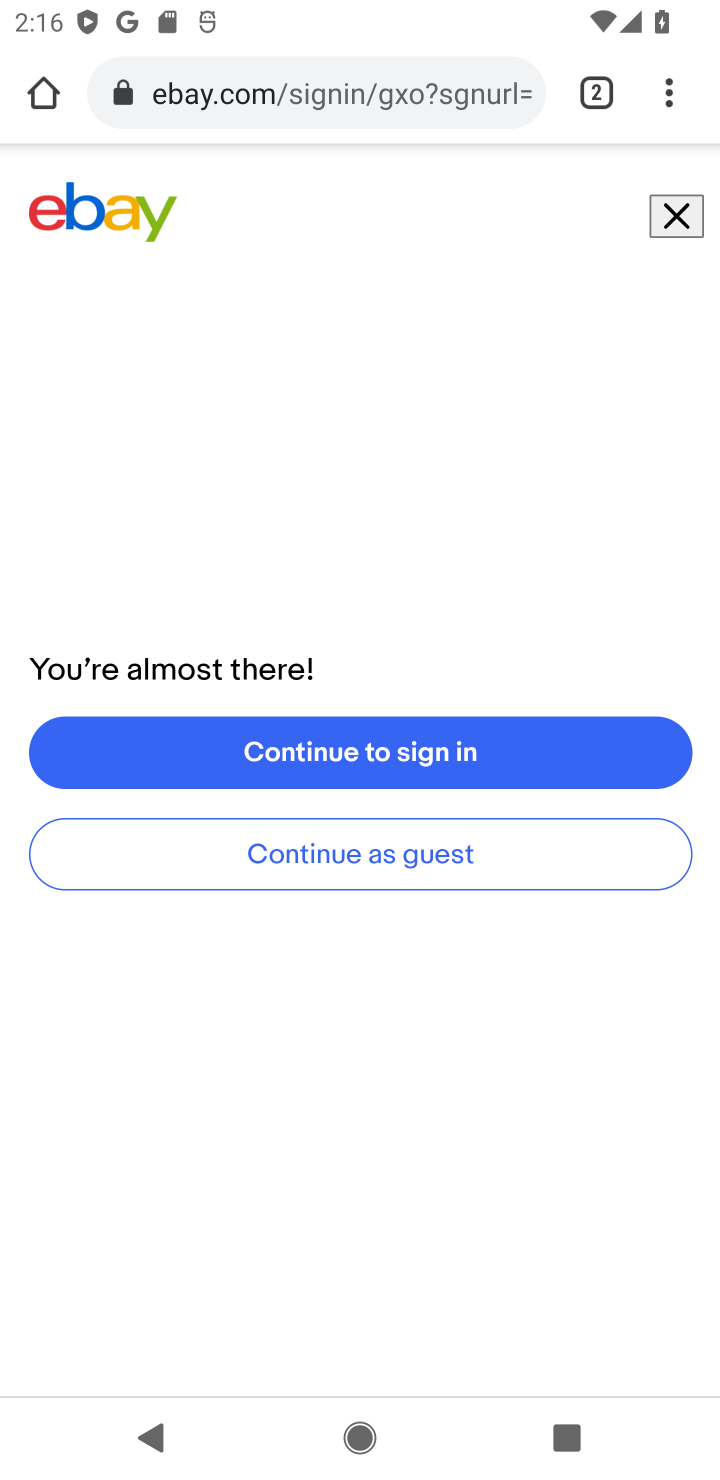
Step 29: task complete